Your task to perform on an android device: Open Google Chrome and open the bookmarks view Image 0: 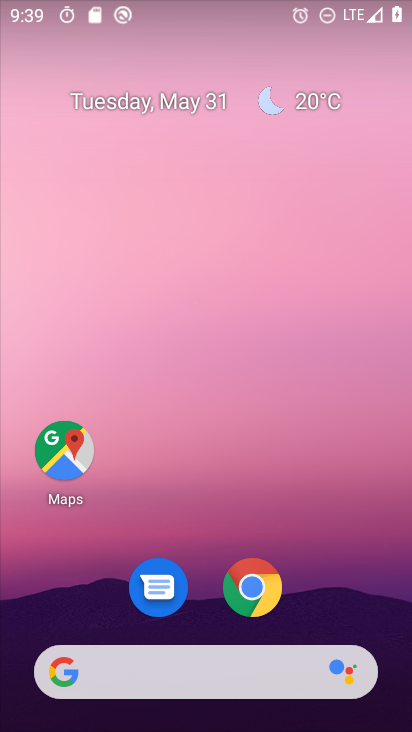
Step 0: click (258, 580)
Your task to perform on an android device: Open Google Chrome and open the bookmarks view Image 1: 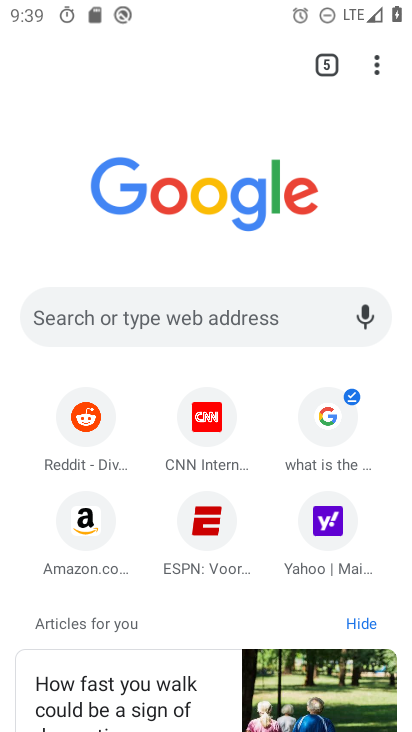
Step 1: click (388, 52)
Your task to perform on an android device: Open Google Chrome and open the bookmarks view Image 2: 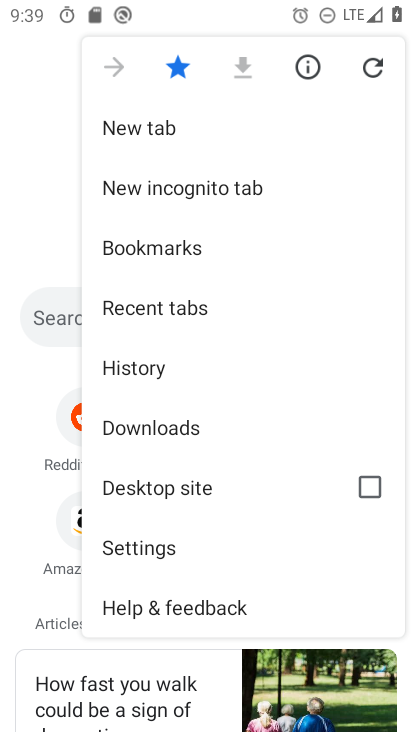
Step 2: click (122, 246)
Your task to perform on an android device: Open Google Chrome and open the bookmarks view Image 3: 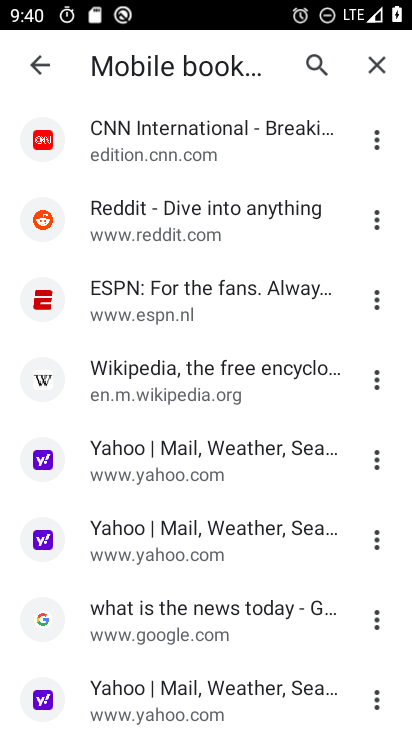
Step 3: click (221, 381)
Your task to perform on an android device: Open Google Chrome and open the bookmarks view Image 4: 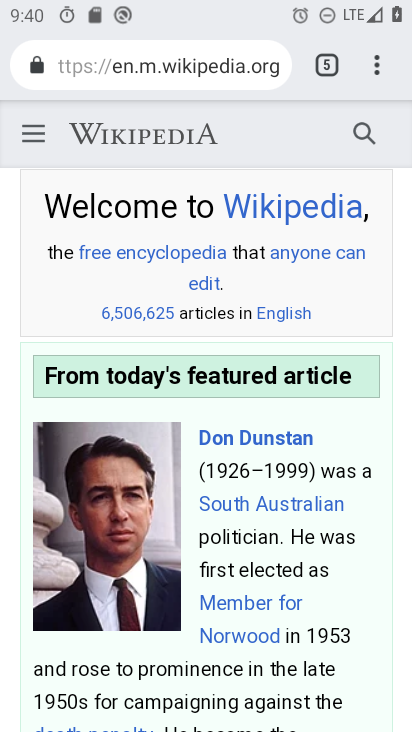
Step 4: task complete